Your task to perform on an android device: Search for the ikea billy bookcase Image 0: 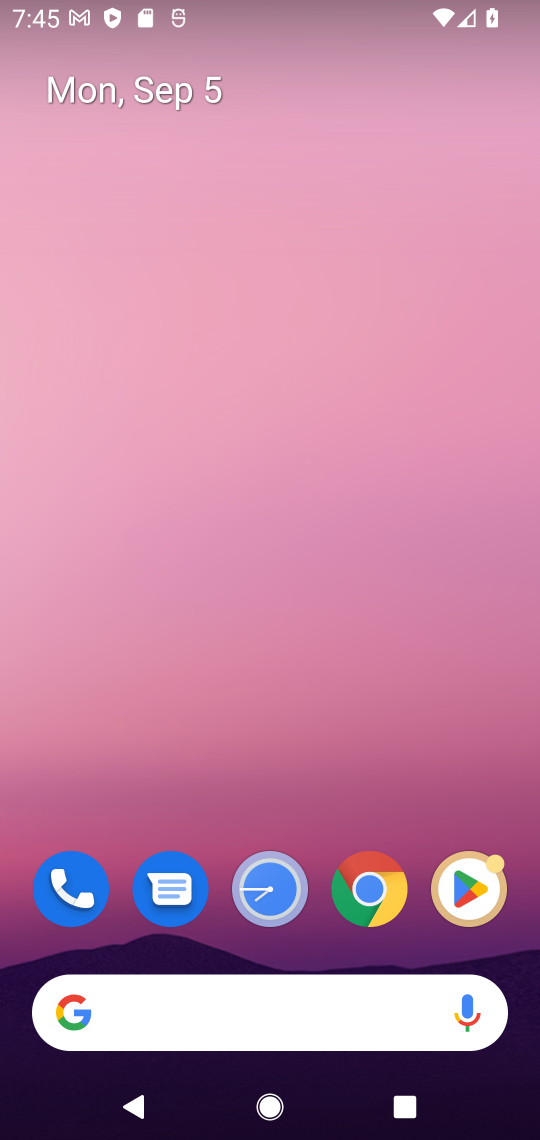
Step 0: click (213, 1013)
Your task to perform on an android device: Search for the ikea billy bookcase Image 1: 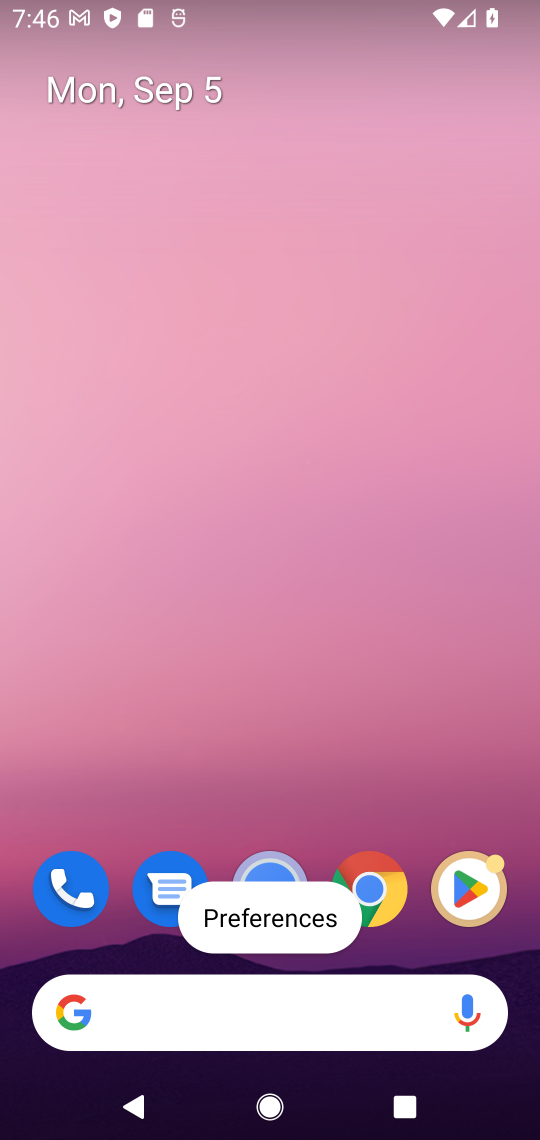
Step 1: click (265, 1010)
Your task to perform on an android device: Search for the ikea billy bookcase Image 2: 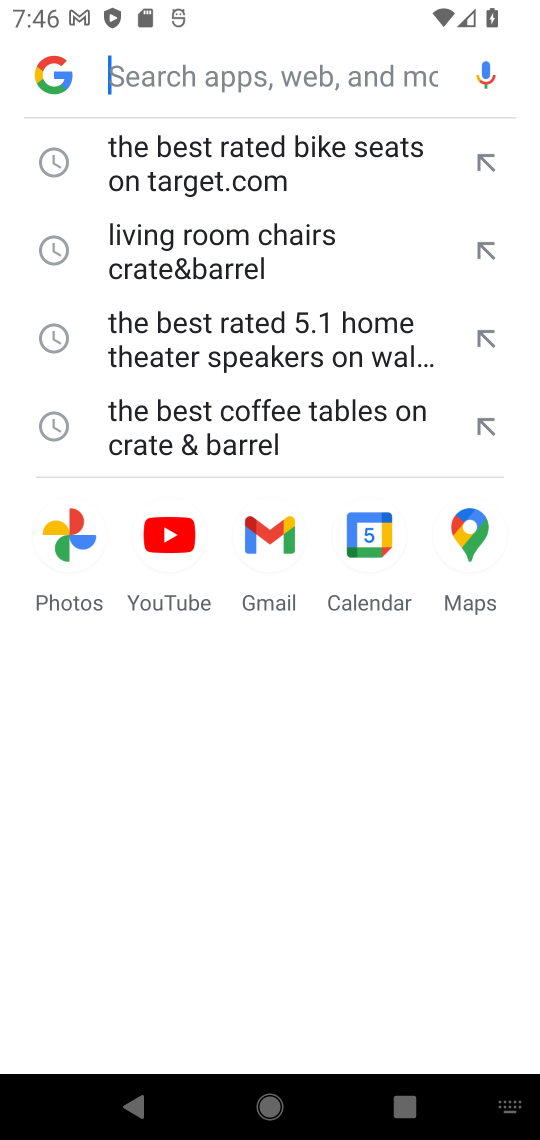
Step 2: type "the ikea billy bookcase"
Your task to perform on an android device: Search for the ikea billy bookcase Image 3: 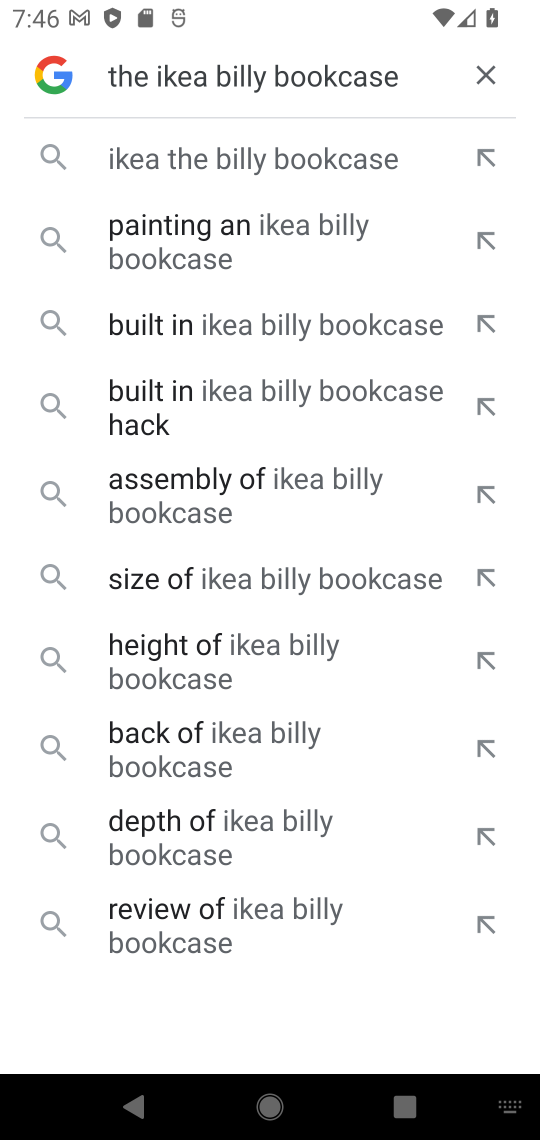
Step 3: click (236, 170)
Your task to perform on an android device: Search for the ikea billy bookcase Image 4: 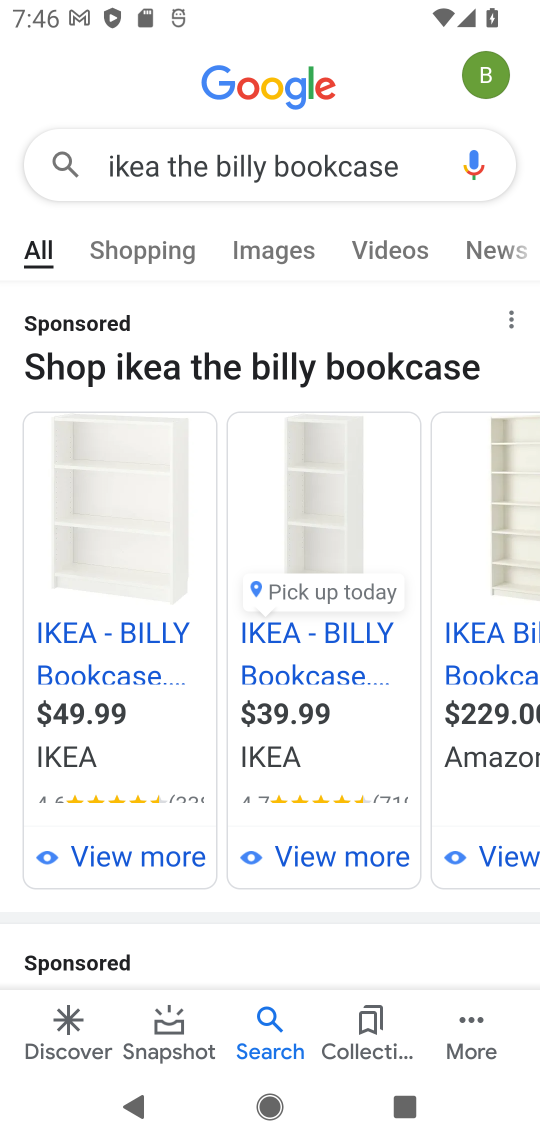
Step 4: task complete